Your task to perform on an android device: open a bookmark in the chrome app Image 0: 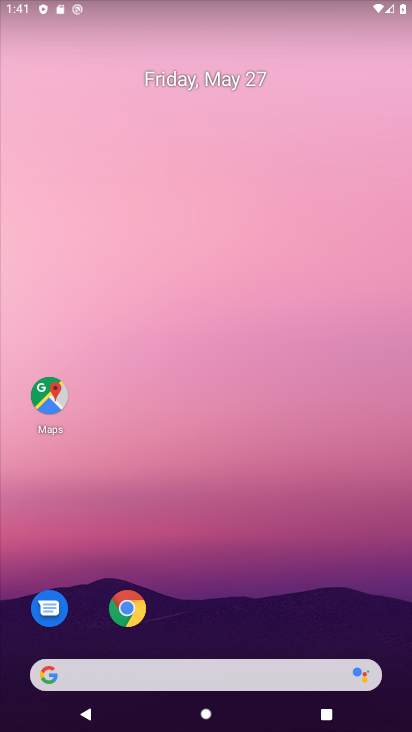
Step 0: click (131, 611)
Your task to perform on an android device: open a bookmark in the chrome app Image 1: 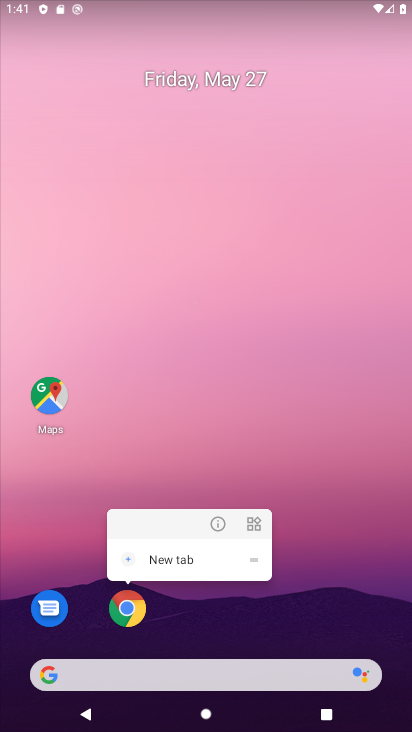
Step 1: click (129, 612)
Your task to perform on an android device: open a bookmark in the chrome app Image 2: 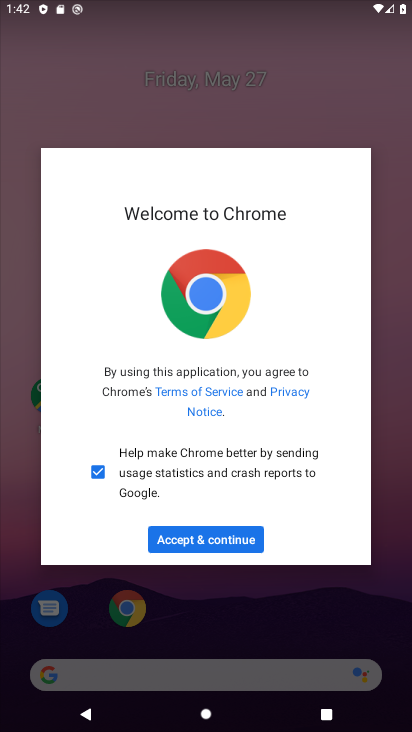
Step 2: click (184, 543)
Your task to perform on an android device: open a bookmark in the chrome app Image 3: 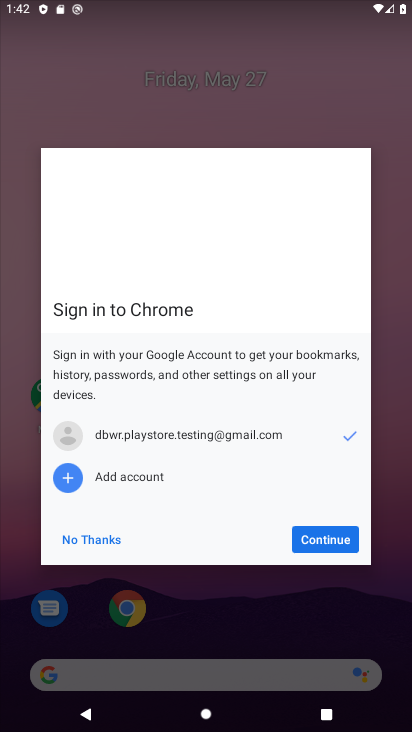
Step 3: click (308, 541)
Your task to perform on an android device: open a bookmark in the chrome app Image 4: 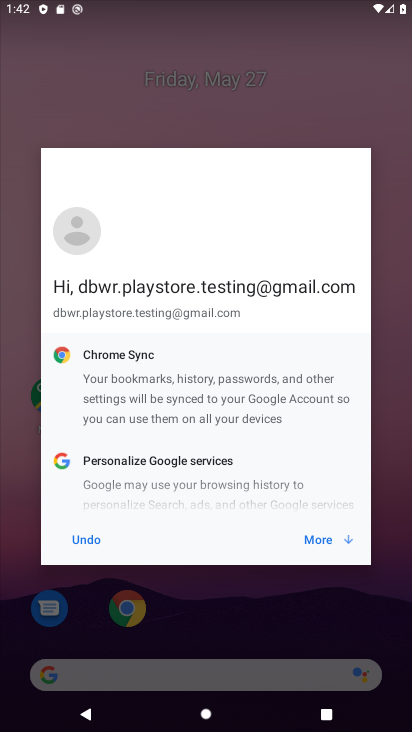
Step 4: click (353, 541)
Your task to perform on an android device: open a bookmark in the chrome app Image 5: 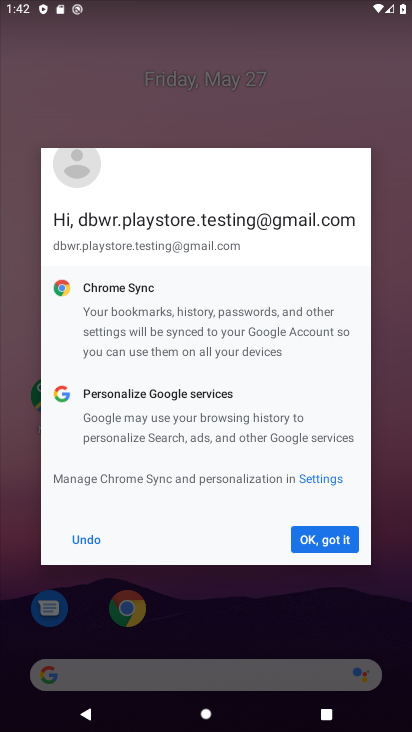
Step 5: click (343, 543)
Your task to perform on an android device: open a bookmark in the chrome app Image 6: 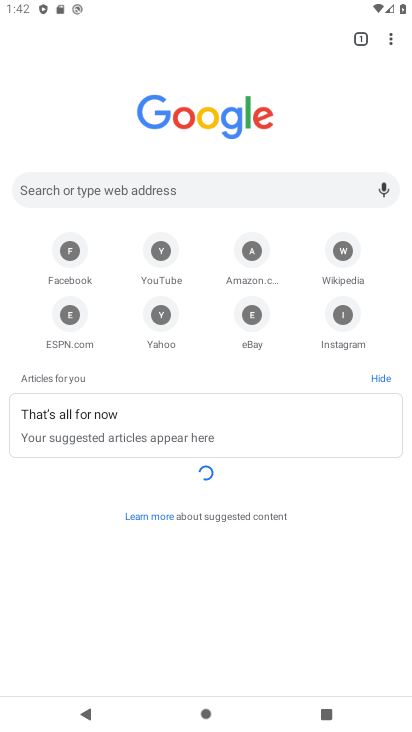
Step 6: click (388, 40)
Your task to perform on an android device: open a bookmark in the chrome app Image 7: 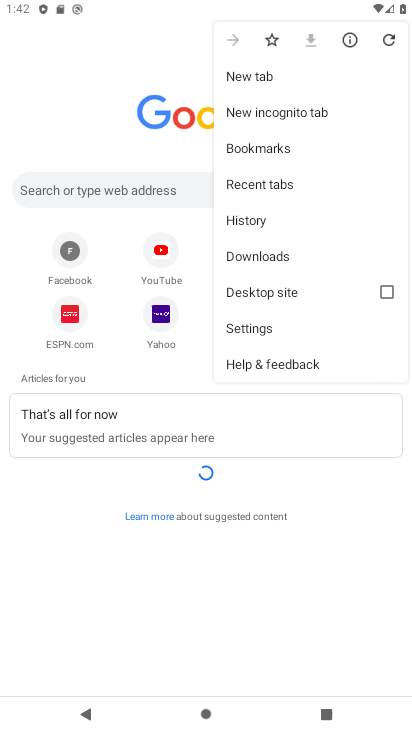
Step 7: click (288, 147)
Your task to perform on an android device: open a bookmark in the chrome app Image 8: 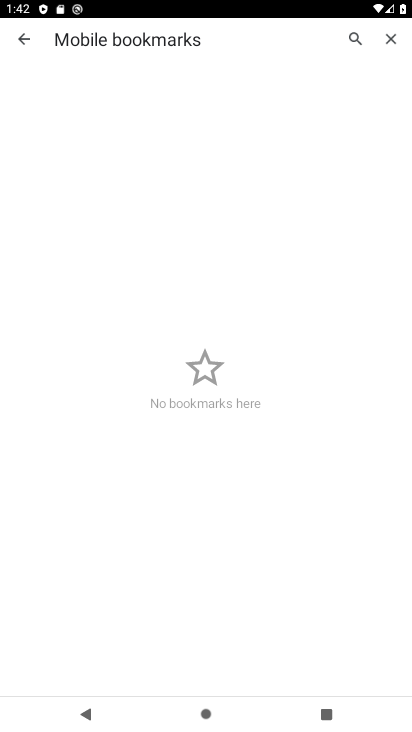
Step 8: task complete